Your task to perform on an android device: clear history in the chrome app Image 0: 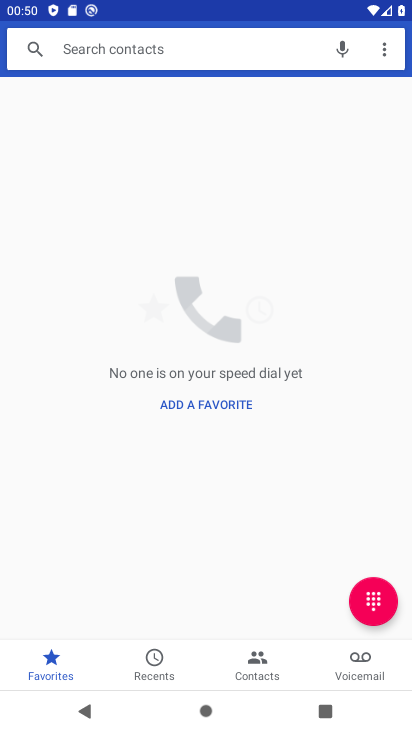
Step 0: click (47, 371)
Your task to perform on an android device: clear history in the chrome app Image 1: 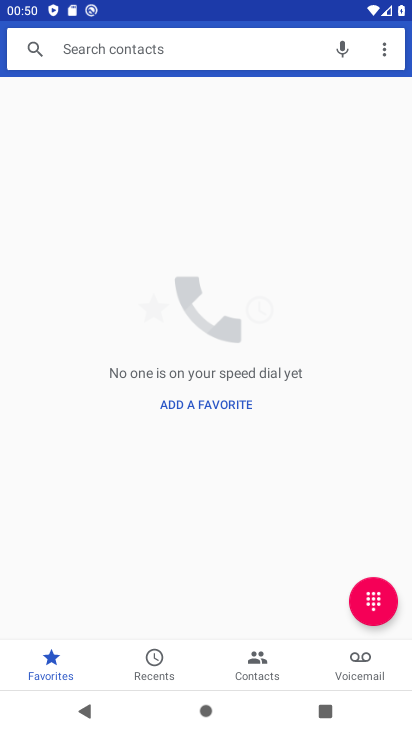
Step 1: press back button
Your task to perform on an android device: clear history in the chrome app Image 2: 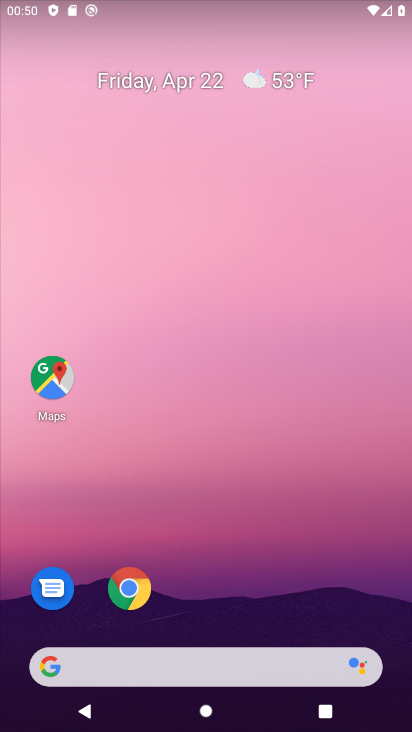
Step 2: click (136, 590)
Your task to perform on an android device: clear history in the chrome app Image 3: 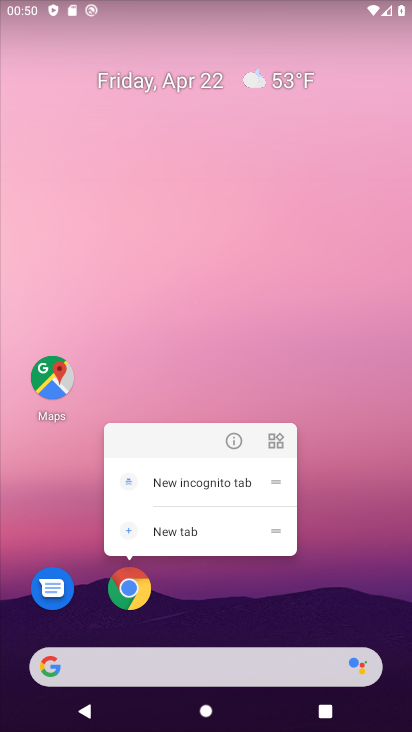
Step 3: click (131, 582)
Your task to perform on an android device: clear history in the chrome app Image 4: 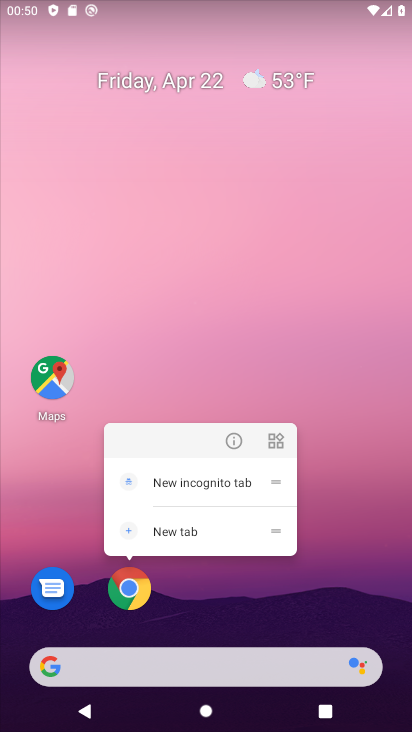
Step 4: click (131, 582)
Your task to perform on an android device: clear history in the chrome app Image 5: 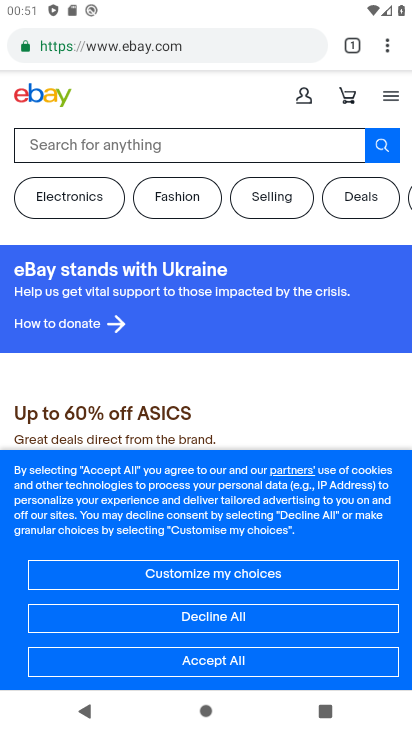
Step 5: drag from (387, 42) to (226, 307)
Your task to perform on an android device: clear history in the chrome app Image 6: 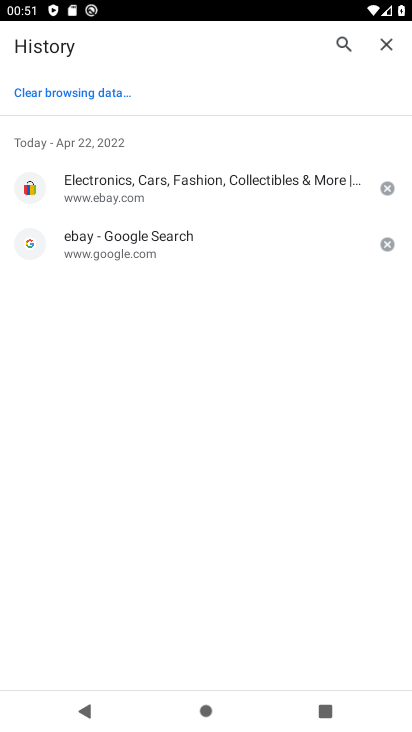
Step 6: click (96, 88)
Your task to perform on an android device: clear history in the chrome app Image 7: 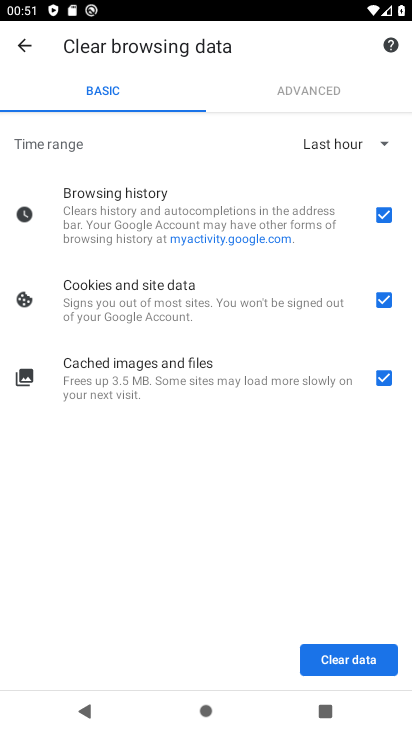
Step 7: click (350, 663)
Your task to perform on an android device: clear history in the chrome app Image 8: 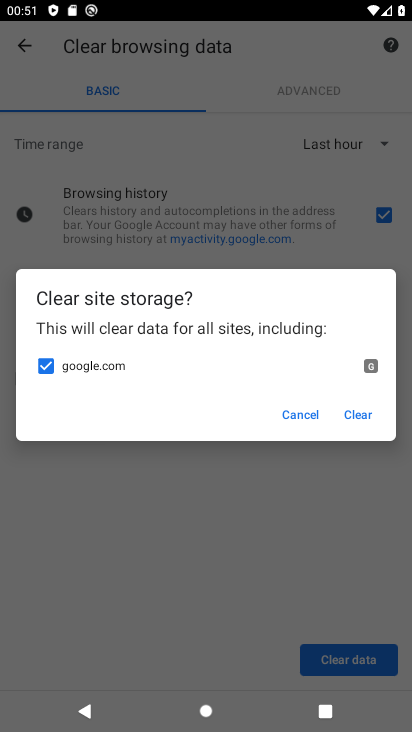
Step 8: click (348, 409)
Your task to perform on an android device: clear history in the chrome app Image 9: 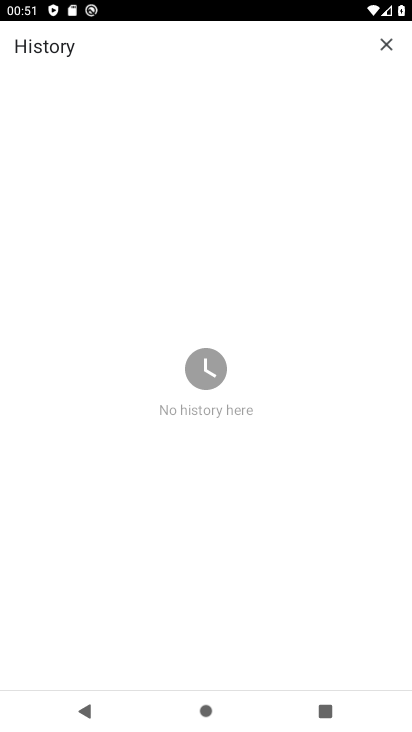
Step 9: task complete